Your task to perform on an android device: Show the shopping cart on bestbuy.com. Add logitech g502 to the cart on bestbuy.com, then select checkout. Image 0: 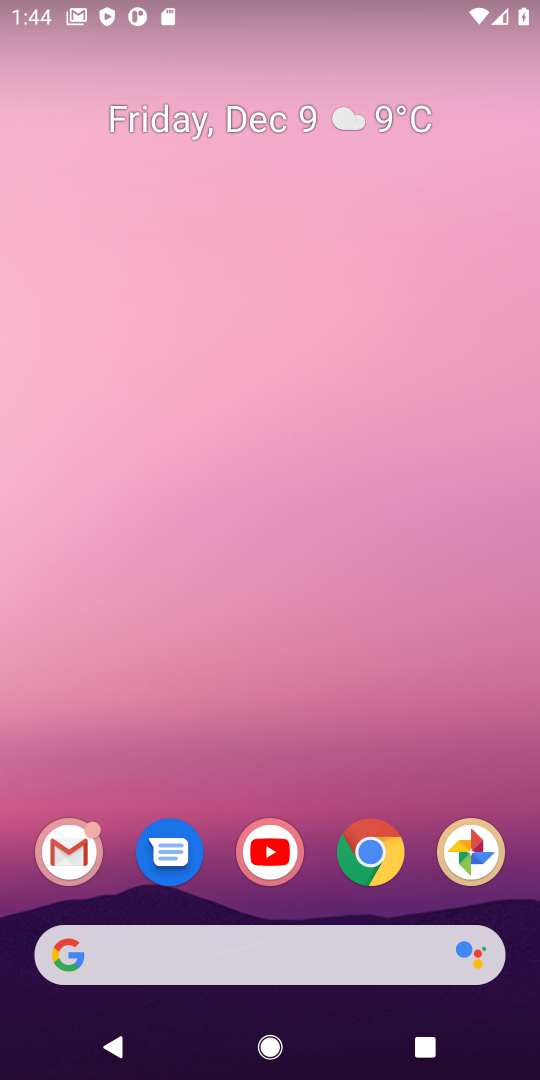
Step 0: click (365, 848)
Your task to perform on an android device: Show the shopping cart on bestbuy.com. Add logitech g502 to the cart on bestbuy.com, then select checkout. Image 1: 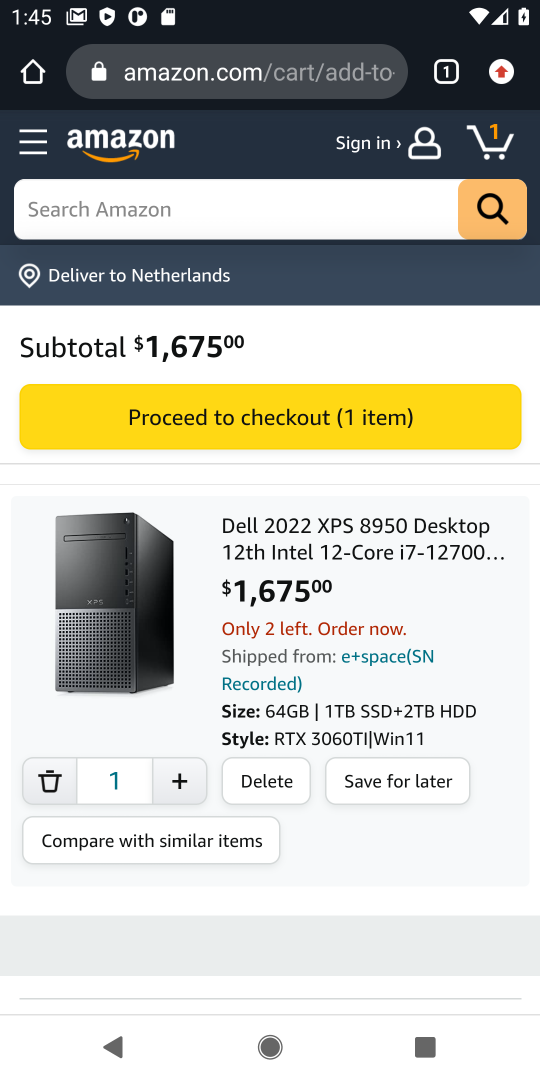
Step 1: click (318, 80)
Your task to perform on an android device: Show the shopping cart on bestbuy.com. Add logitech g502 to the cart on bestbuy.com, then select checkout. Image 2: 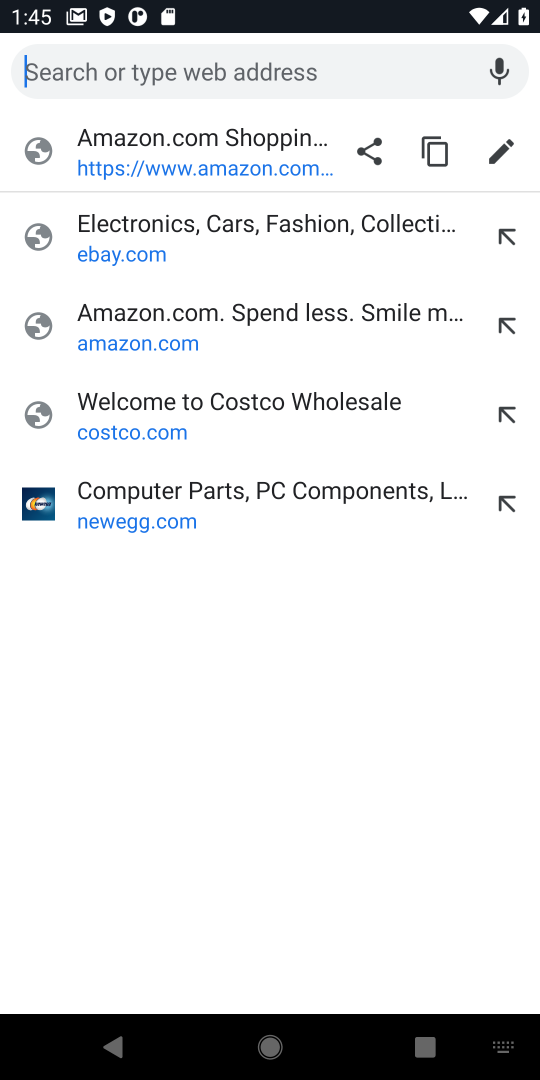
Step 2: type "bestbuy.com"
Your task to perform on an android device: Show the shopping cart on bestbuy.com. Add logitech g502 to the cart on bestbuy.com, then select checkout. Image 3: 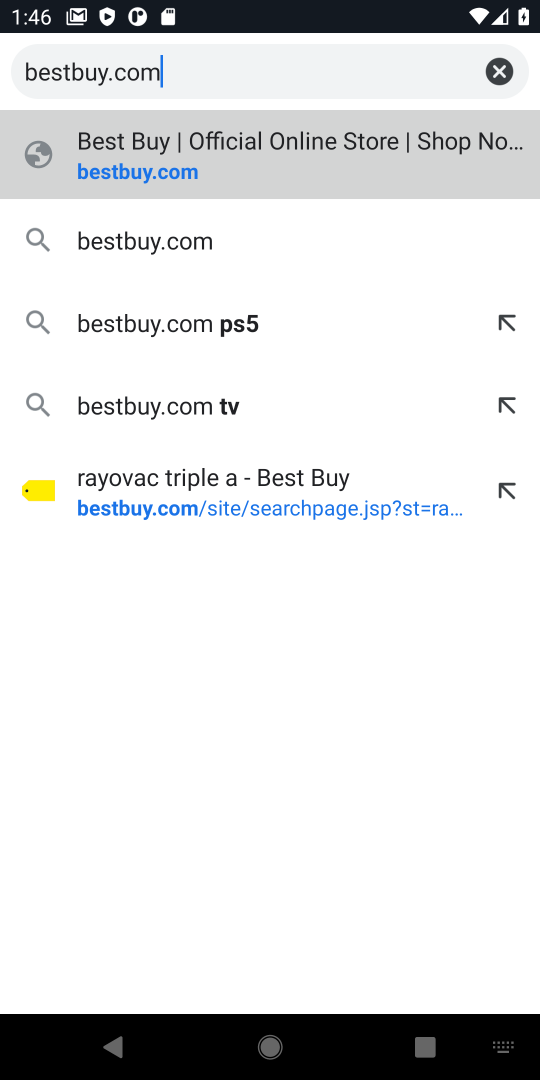
Step 3: click (150, 246)
Your task to perform on an android device: Show the shopping cart on bestbuy.com. Add logitech g502 to the cart on bestbuy.com, then select checkout. Image 4: 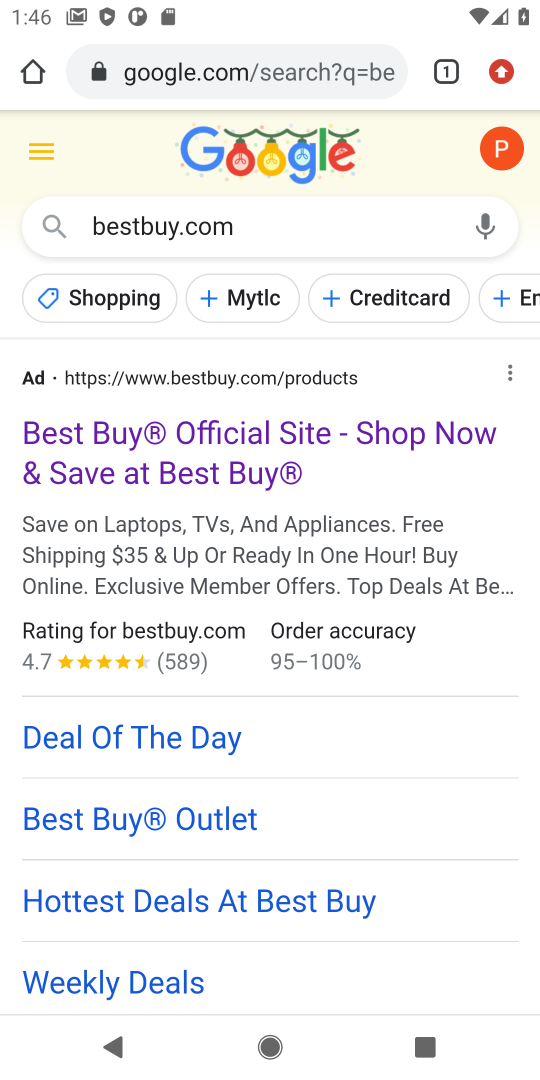
Step 4: drag from (112, 856) to (195, 398)
Your task to perform on an android device: Show the shopping cart on bestbuy.com. Add logitech g502 to the cart on bestbuy.com, then select checkout. Image 5: 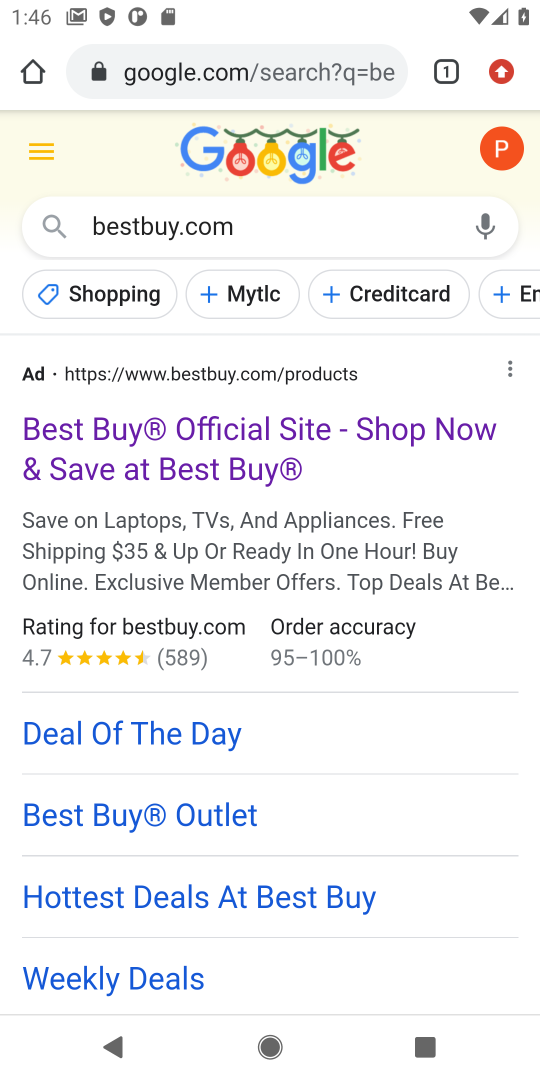
Step 5: drag from (284, 871) to (334, 247)
Your task to perform on an android device: Show the shopping cart on bestbuy.com. Add logitech g502 to the cart on bestbuy.com, then select checkout. Image 6: 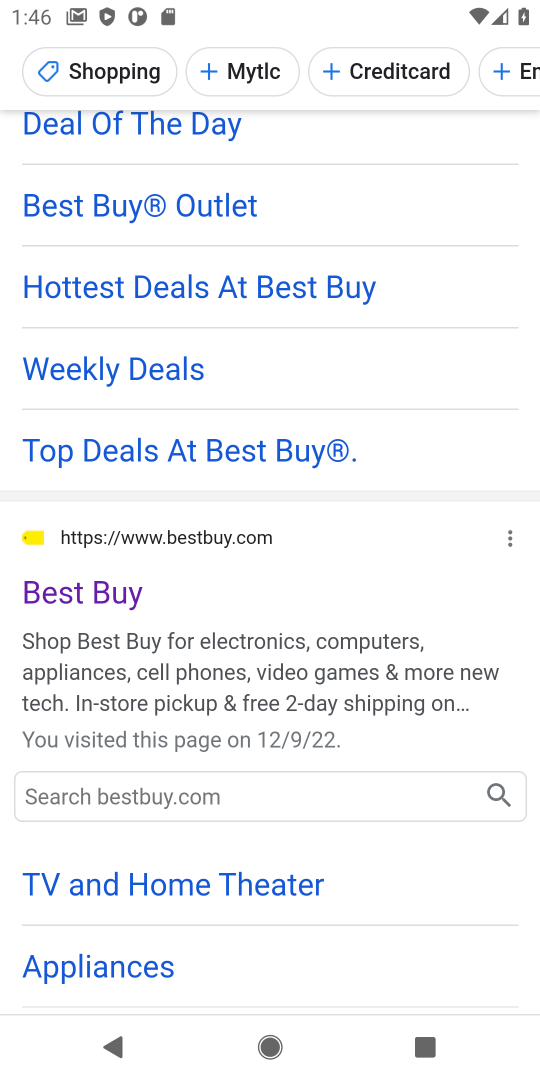
Step 6: click (229, 533)
Your task to perform on an android device: Show the shopping cart on bestbuy.com. Add logitech g502 to the cart on bestbuy.com, then select checkout. Image 7: 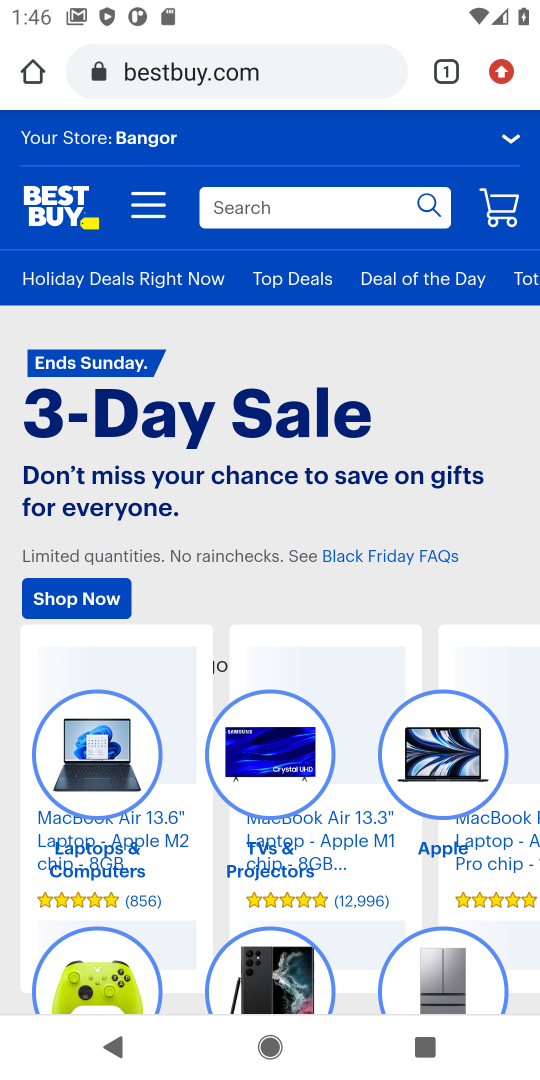
Step 7: click (305, 193)
Your task to perform on an android device: Show the shopping cart on bestbuy.com. Add logitech g502 to the cart on bestbuy.com, then select checkout. Image 8: 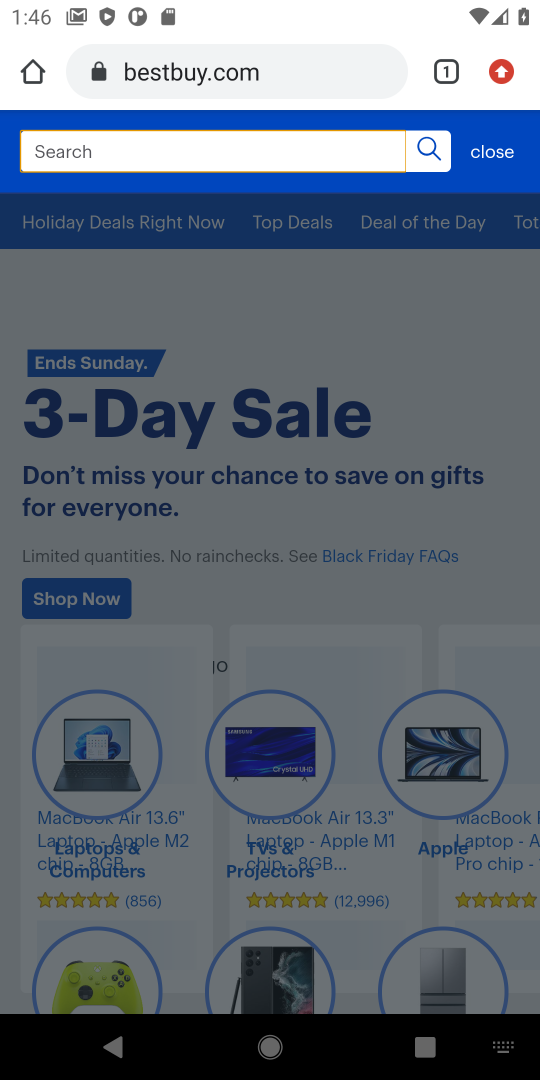
Step 8: type "logitech g502 "
Your task to perform on an android device: Show the shopping cart on bestbuy.com. Add logitech g502 to the cart on bestbuy.com, then select checkout. Image 9: 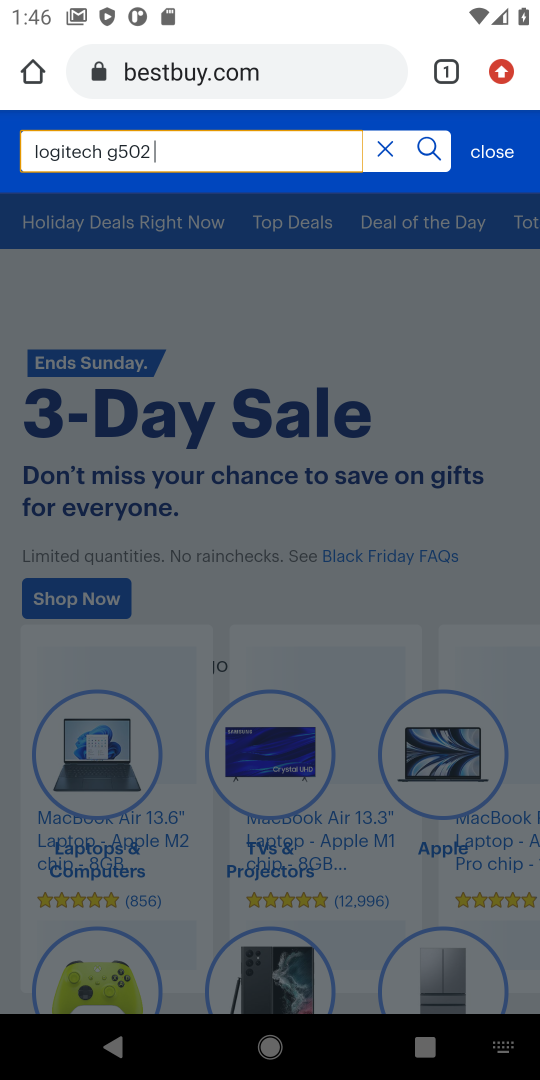
Step 9: press enter
Your task to perform on an android device: Show the shopping cart on bestbuy.com. Add logitech g502 to the cart on bestbuy.com, then select checkout. Image 10: 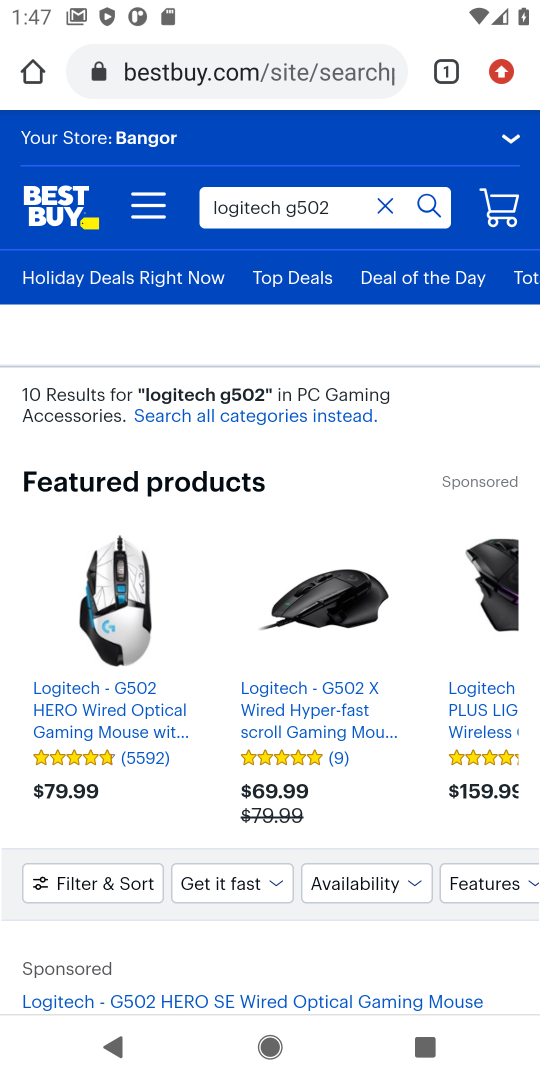
Step 10: drag from (380, 808) to (431, 487)
Your task to perform on an android device: Show the shopping cart on bestbuy.com. Add logitech g502 to the cart on bestbuy.com, then select checkout. Image 11: 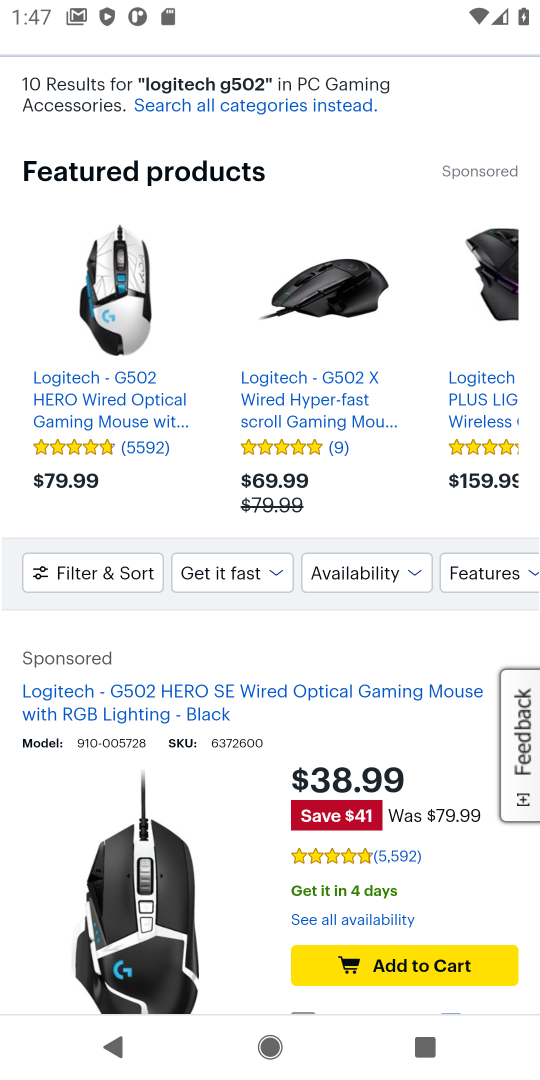
Step 11: click (106, 925)
Your task to perform on an android device: Show the shopping cart on bestbuy.com. Add logitech g502 to the cart on bestbuy.com, then select checkout. Image 12: 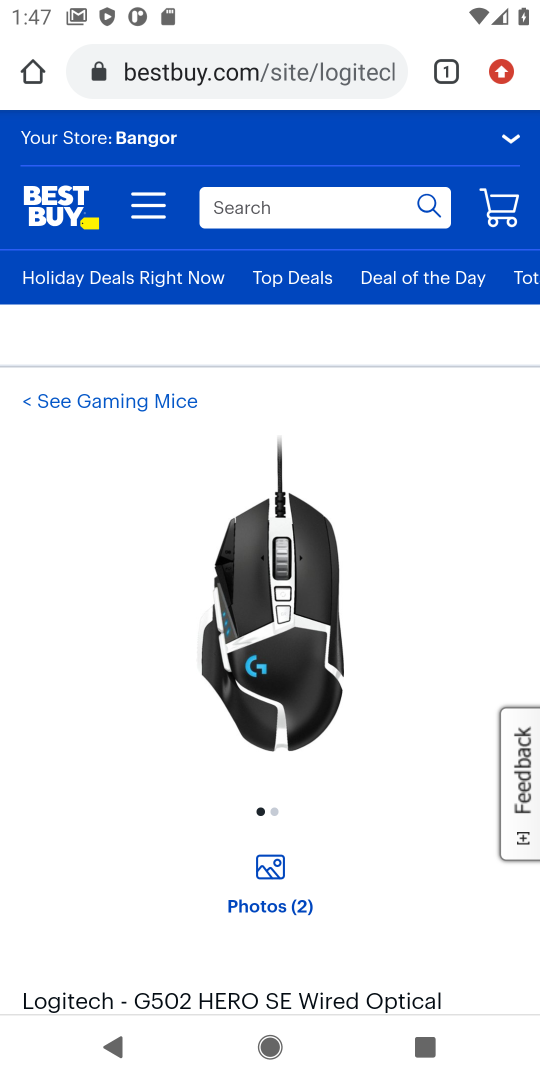
Step 12: drag from (389, 902) to (327, 466)
Your task to perform on an android device: Show the shopping cart on bestbuy.com. Add logitech g502 to the cart on bestbuy.com, then select checkout. Image 13: 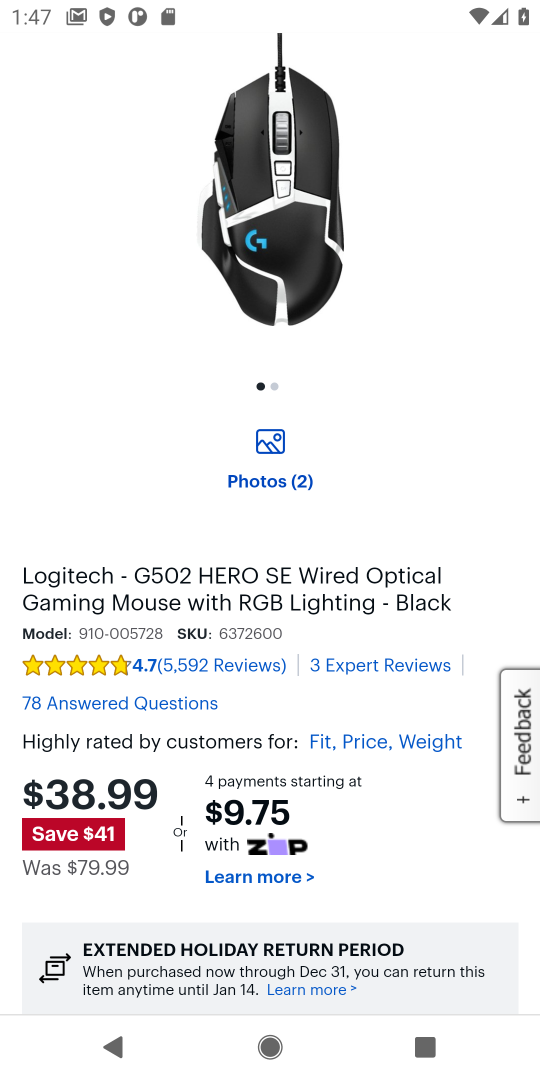
Step 13: drag from (364, 861) to (368, 360)
Your task to perform on an android device: Show the shopping cart on bestbuy.com. Add logitech g502 to the cart on bestbuy.com, then select checkout. Image 14: 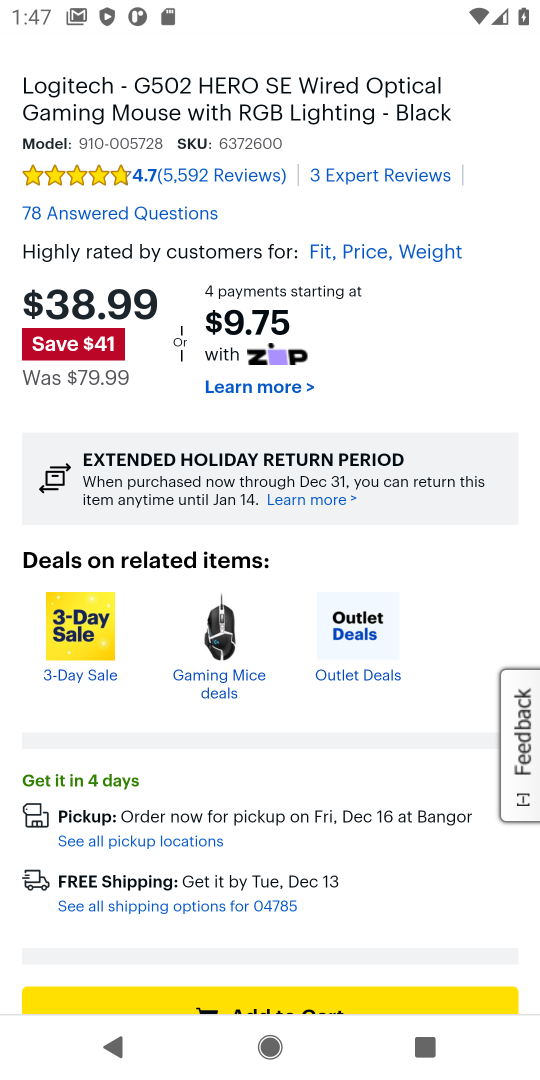
Step 14: drag from (386, 840) to (391, 494)
Your task to perform on an android device: Show the shopping cart on bestbuy.com. Add logitech g502 to the cart on bestbuy.com, then select checkout. Image 15: 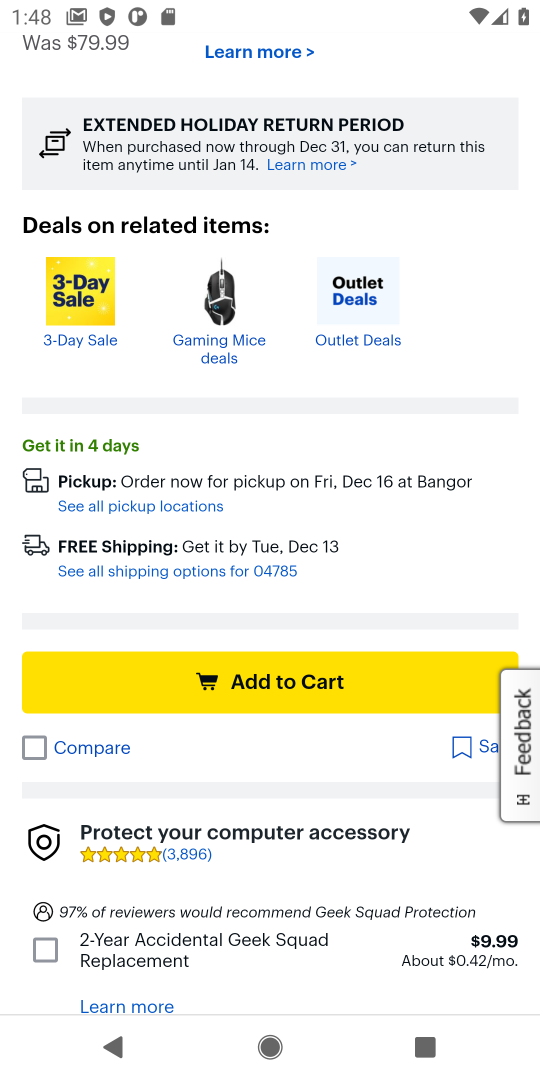
Step 15: click (273, 675)
Your task to perform on an android device: Show the shopping cart on bestbuy.com. Add logitech g502 to the cart on bestbuy.com, then select checkout. Image 16: 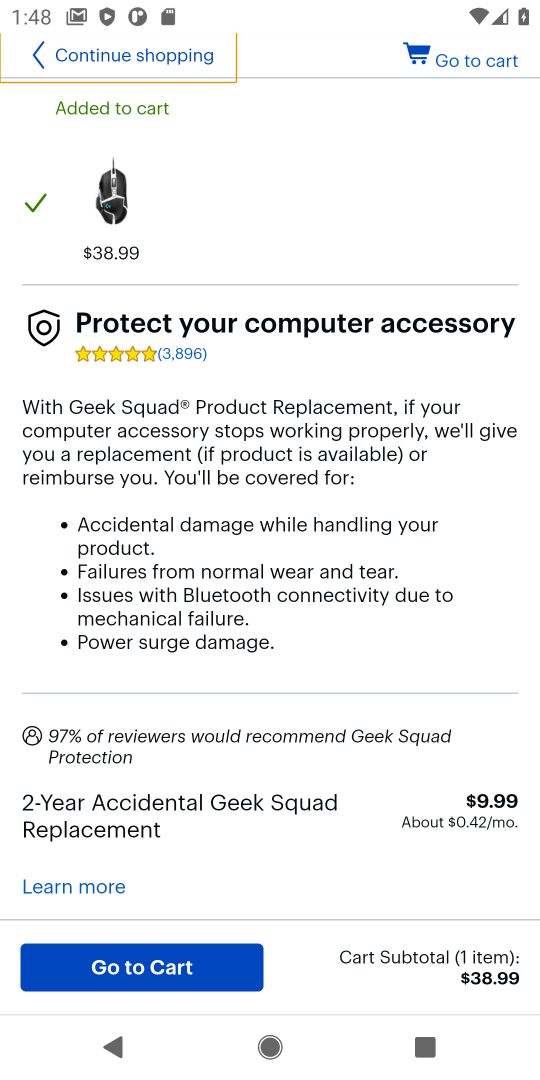
Step 16: click (136, 959)
Your task to perform on an android device: Show the shopping cart on bestbuy.com. Add logitech g502 to the cart on bestbuy.com, then select checkout. Image 17: 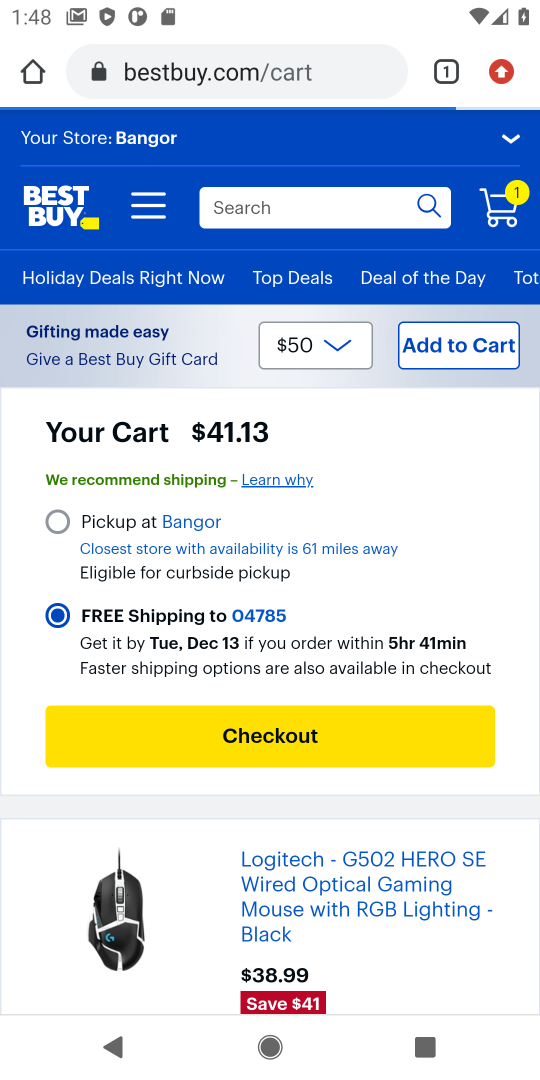
Step 17: click (294, 733)
Your task to perform on an android device: Show the shopping cart on bestbuy.com. Add logitech g502 to the cart on bestbuy.com, then select checkout. Image 18: 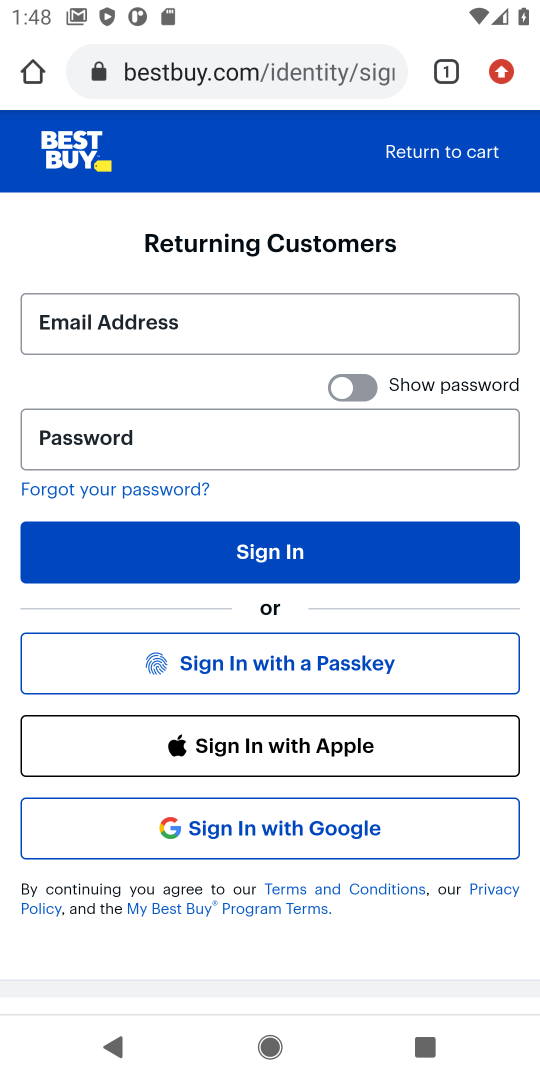
Step 18: task complete